Your task to perform on an android device: Open Google Chrome Image 0: 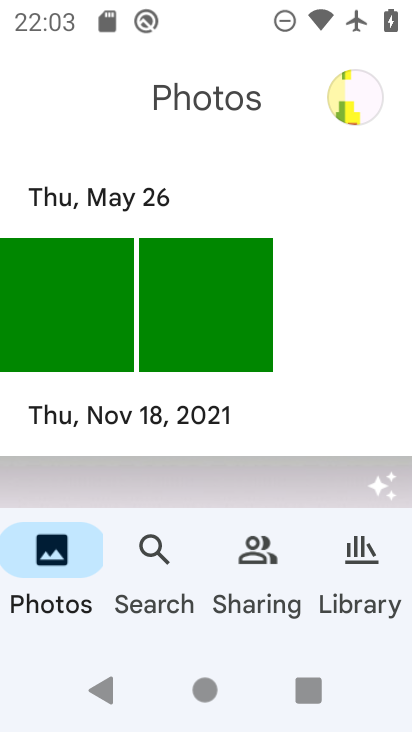
Step 0: press home button
Your task to perform on an android device: Open Google Chrome Image 1: 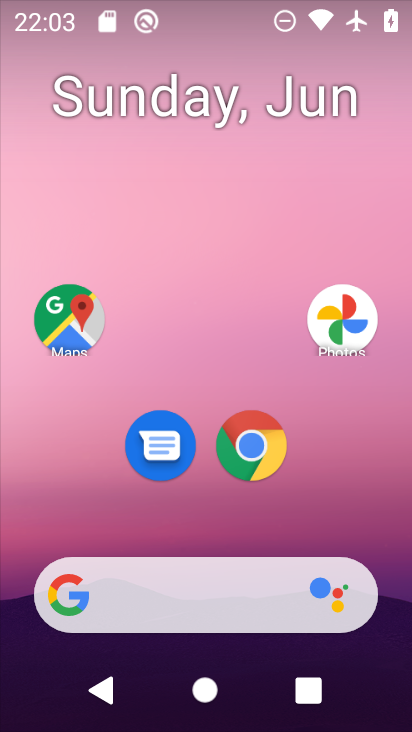
Step 1: click (245, 459)
Your task to perform on an android device: Open Google Chrome Image 2: 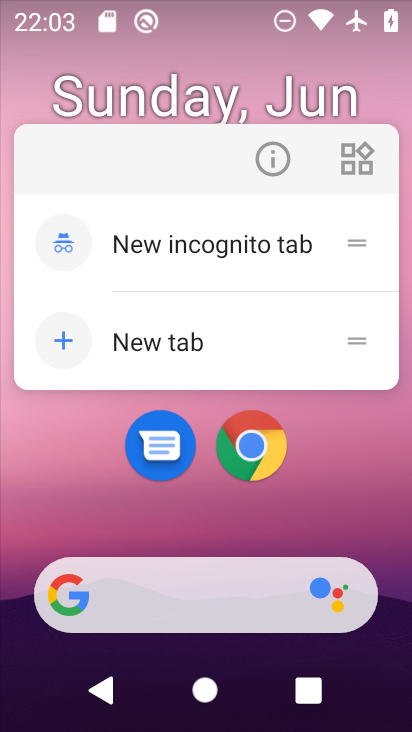
Step 2: click (246, 459)
Your task to perform on an android device: Open Google Chrome Image 3: 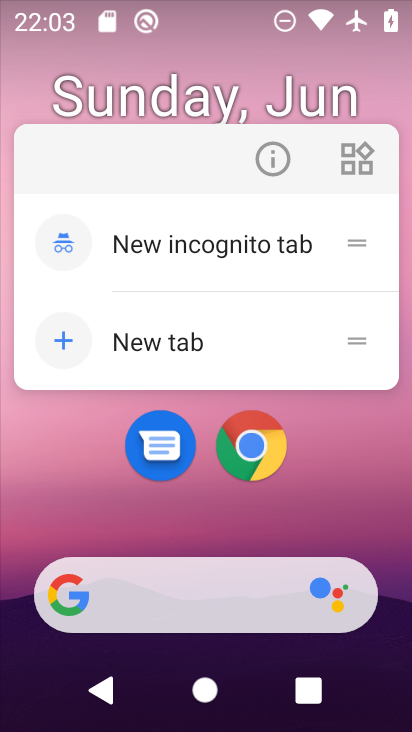
Step 3: click (271, 460)
Your task to perform on an android device: Open Google Chrome Image 4: 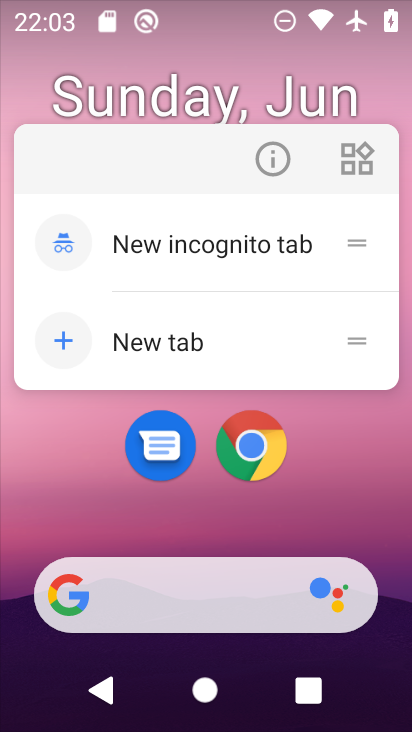
Step 4: click (271, 461)
Your task to perform on an android device: Open Google Chrome Image 5: 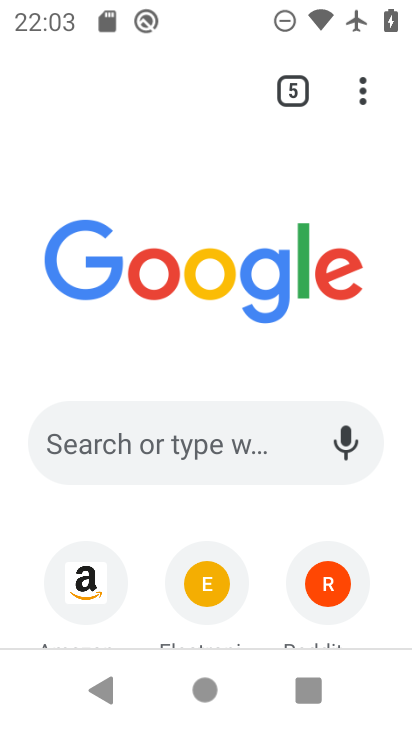
Step 5: task complete